Your task to perform on an android device: change the clock display to analog Image 0: 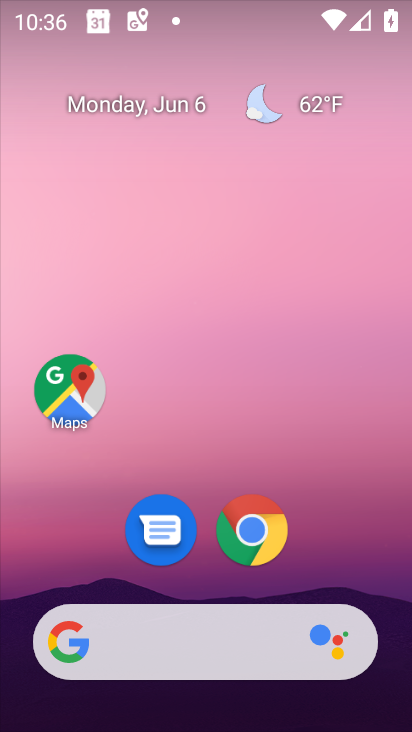
Step 0: drag from (303, 565) to (237, 159)
Your task to perform on an android device: change the clock display to analog Image 1: 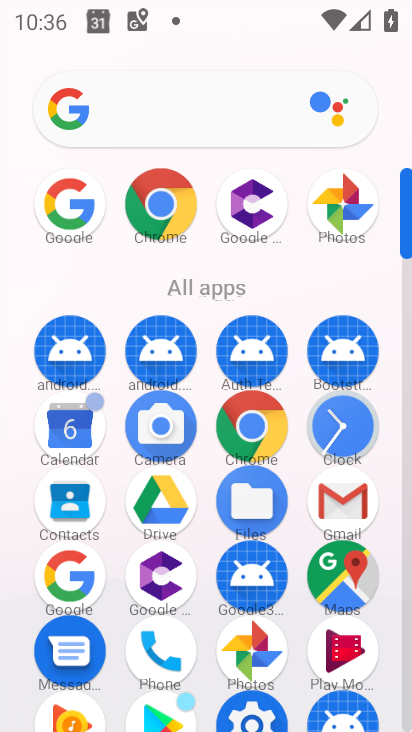
Step 1: drag from (227, 511) to (207, 330)
Your task to perform on an android device: change the clock display to analog Image 2: 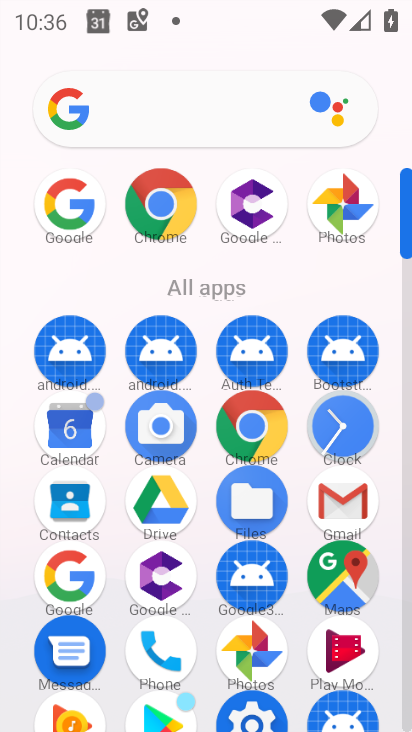
Step 2: click (352, 426)
Your task to perform on an android device: change the clock display to analog Image 3: 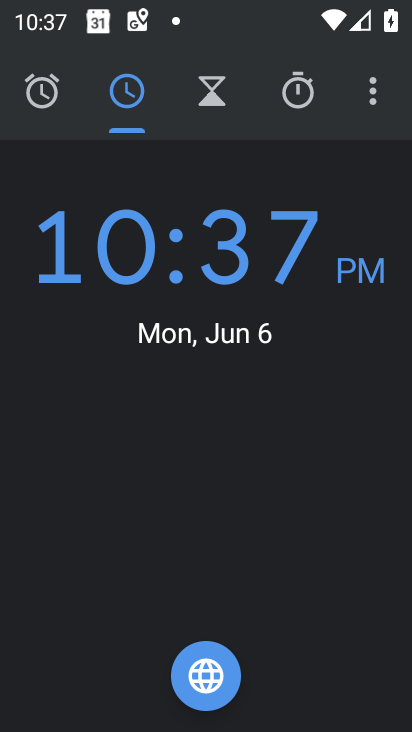
Step 3: click (46, 89)
Your task to perform on an android device: change the clock display to analog Image 4: 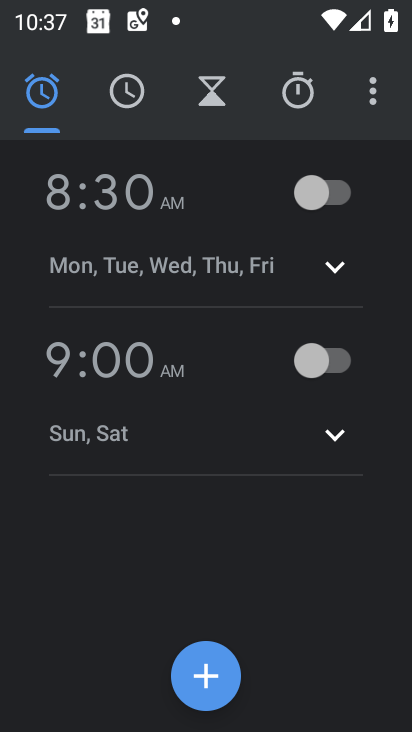
Step 4: click (359, 91)
Your task to perform on an android device: change the clock display to analog Image 5: 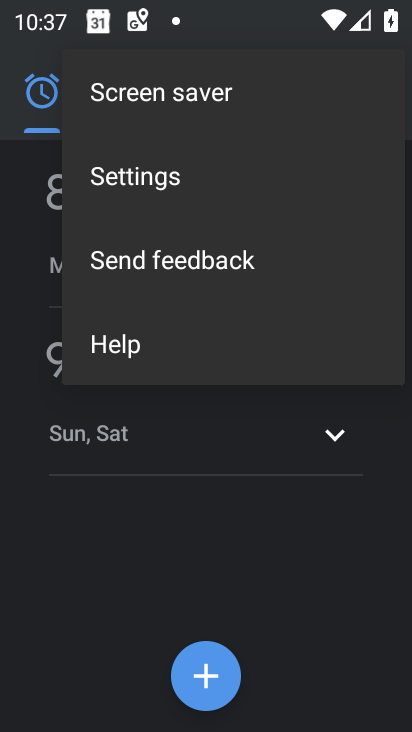
Step 5: click (126, 188)
Your task to perform on an android device: change the clock display to analog Image 6: 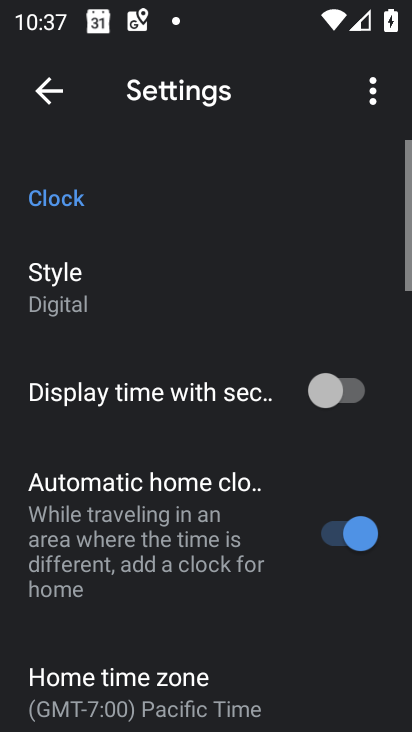
Step 6: click (121, 251)
Your task to perform on an android device: change the clock display to analog Image 7: 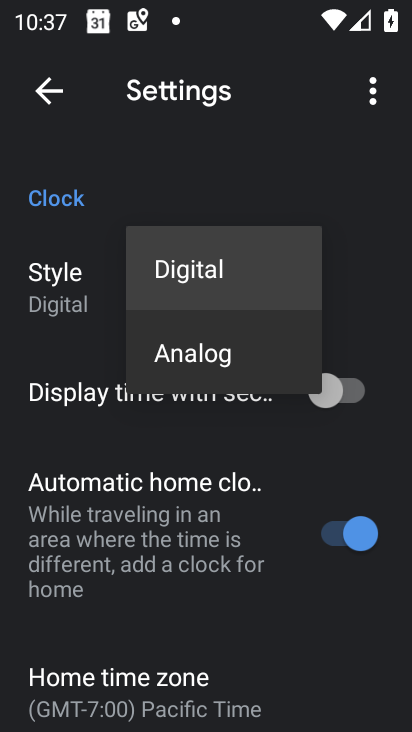
Step 7: click (159, 360)
Your task to perform on an android device: change the clock display to analog Image 8: 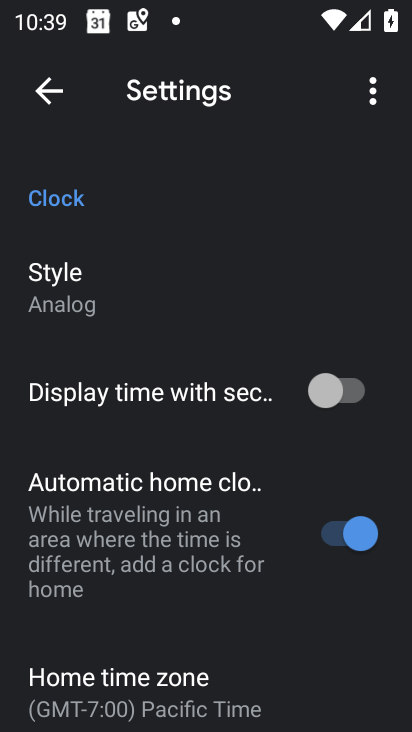
Step 8: task complete